Your task to perform on an android device: Open battery settings Image 0: 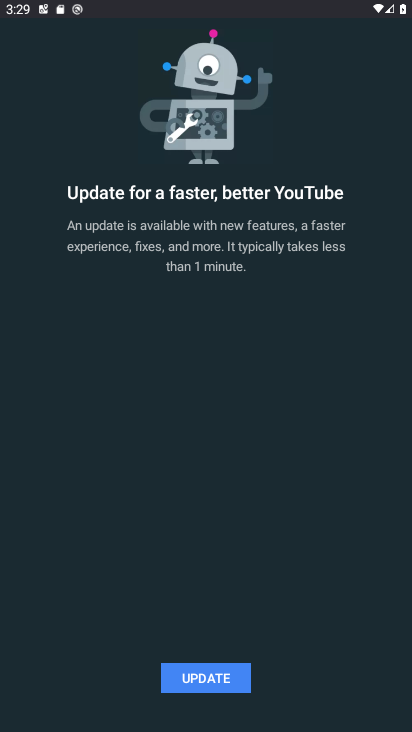
Step 0: press home button
Your task to perform on an android device: Open battery settings Image 1: 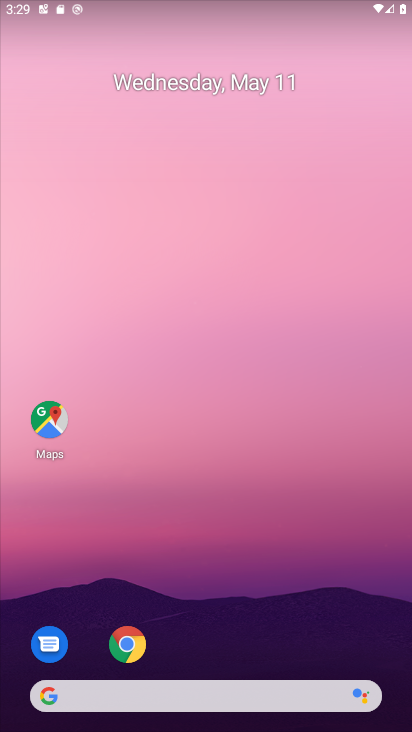
Step 1: drag from (201, 665) to (162, 20)
Your task to perform on an android device: Open battery settings Image 2: 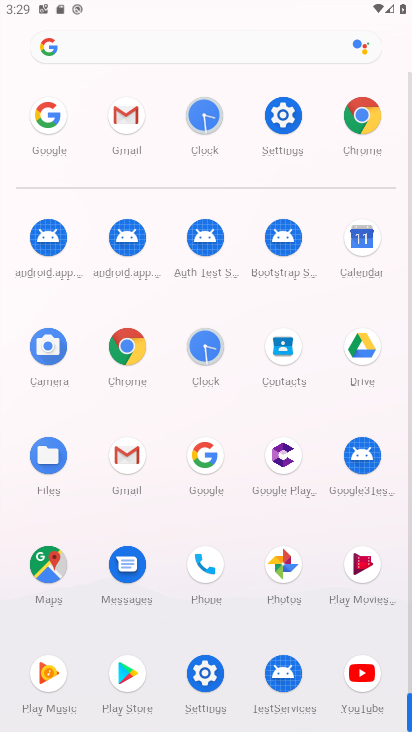
Step 2: click (298, 109)
Your task to perform on an android device: Open battery settings Image 3: 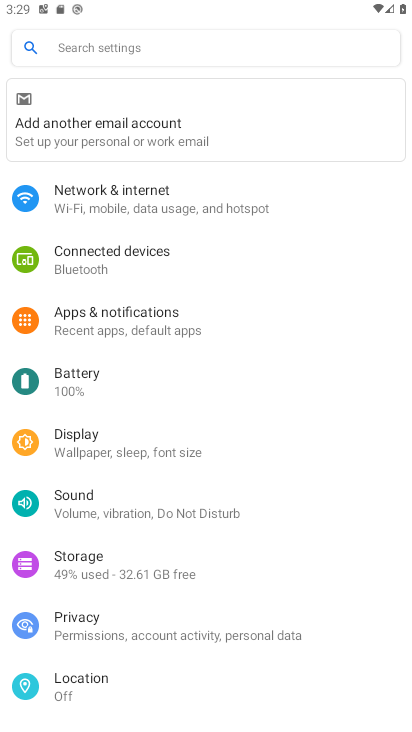
Step 3: click (86, 382)
Your task to perform on an android device: Open battery settings Image 4: 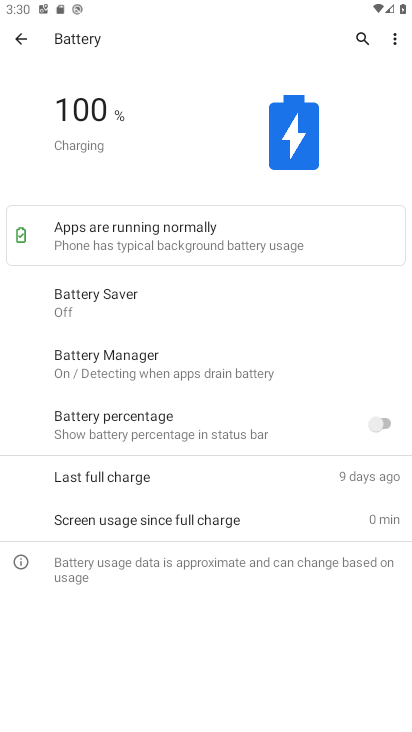
Step 4: task complete